Your task to perform on an android device: Show me recent news Image 0: 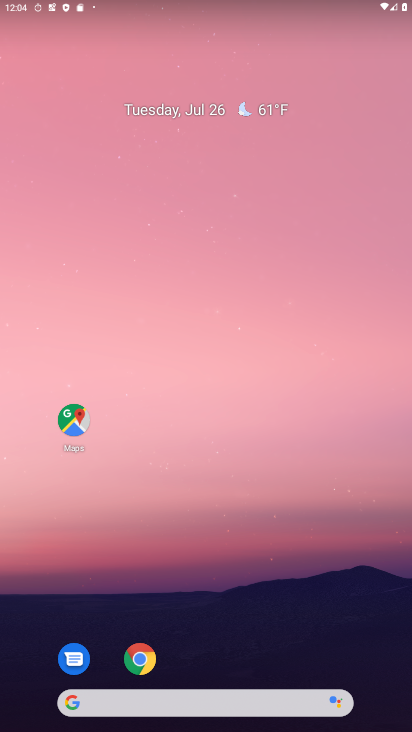
Step 0: click (105, 701)
Your task to perform on an android device: Show me recent news Image 1: 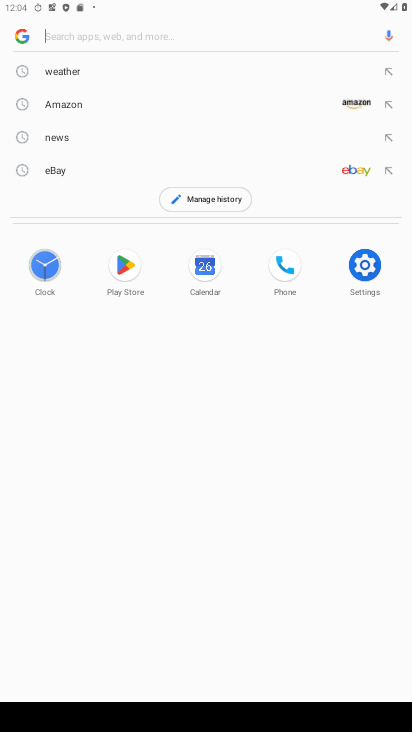
Step 1: type "recent news"
Your task to perform on an android device: Show me recent news Image 2: 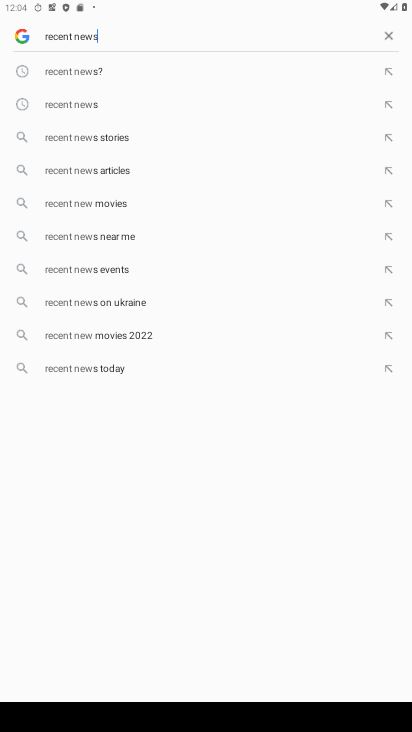
Step 2: type ""
Your task to perform on an android device: Show me recent news Image 3: 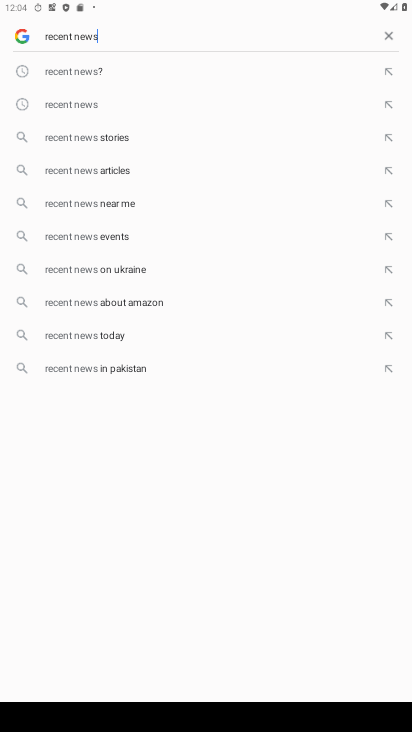
Step 3: click (62, 109)
Your task to perform on an android device: Show me recent news Image 4: 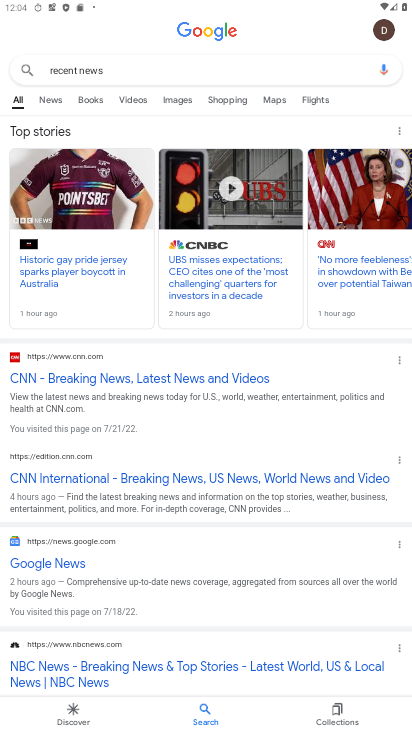
Step 4: task complete